Your task to perform on an android device: turn on showing notifications on the lock screen Image 0: 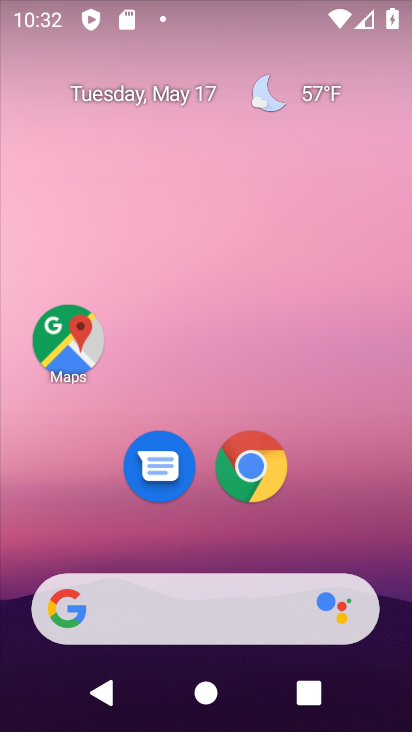
Step 0: drag from (224, 564) to (165, 28)
Your task to perform on an android device: turn on showing notifications on the lock screen Image 1: 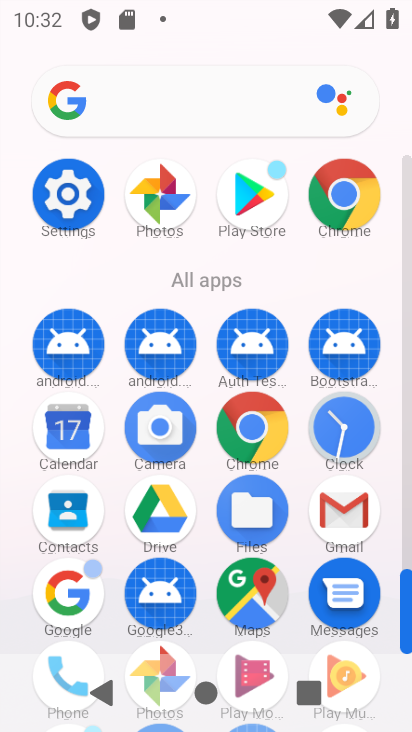
Step 1: click (76, 191)
Your task to perform on an android device: turn on showing notifications on the lock screen Image 2: 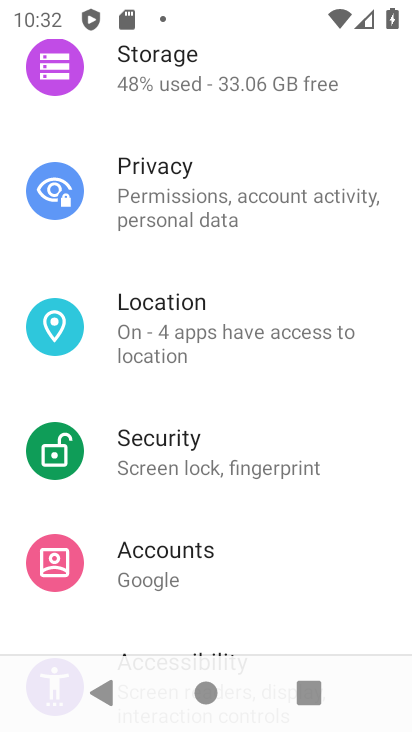
Step 2: click (184, 331)
Your task to perform on an android device: turn on showing notifications on the lock screen Image 3: 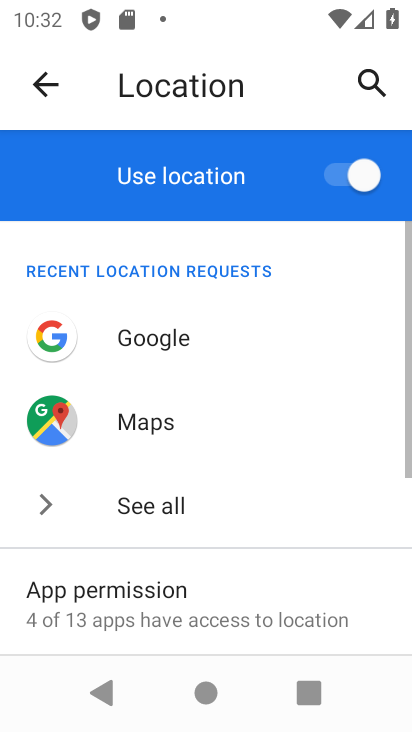
Step 3: click (32, 84)
Your task to perform on an android device: turn on showing notifications on the lock screen Image 4: 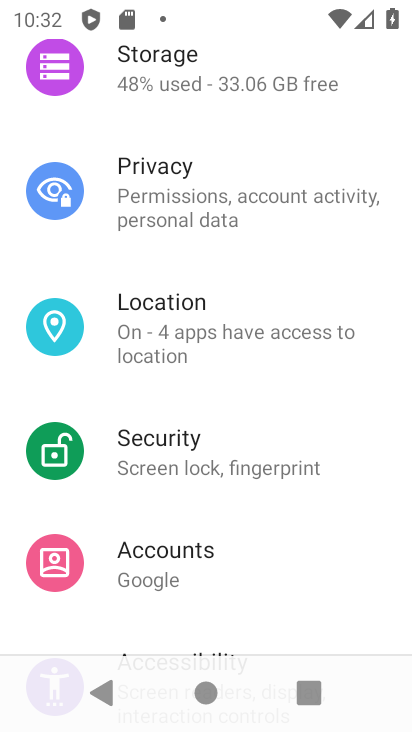
Step 4: drag from (198, 190) to (173, 656)
Your task to perform on an android device: turn on showing notifications on the lock screen Image 5: 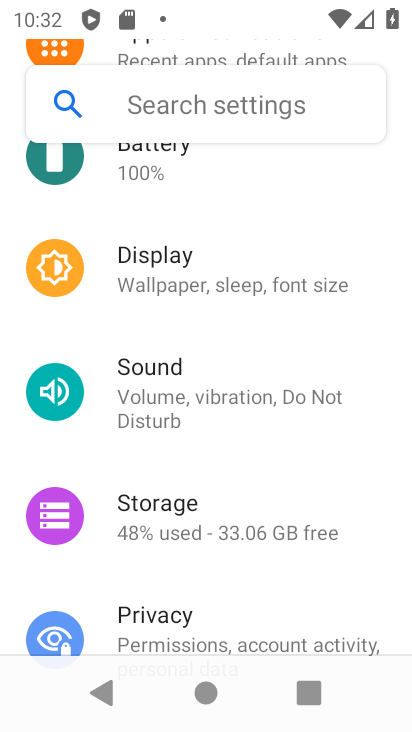
Step 5: drag from (197, 210) to (179, 625)
Your task to perform on an android device: turn on showing notifications on the lock screen Image 6: 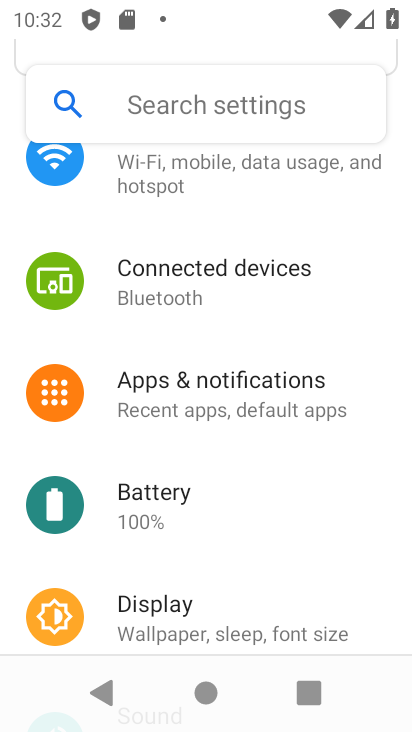
Step 6: click (197, 403)
Your task to perform on an android device: turn on showing notifications on the lock screen Image 7: 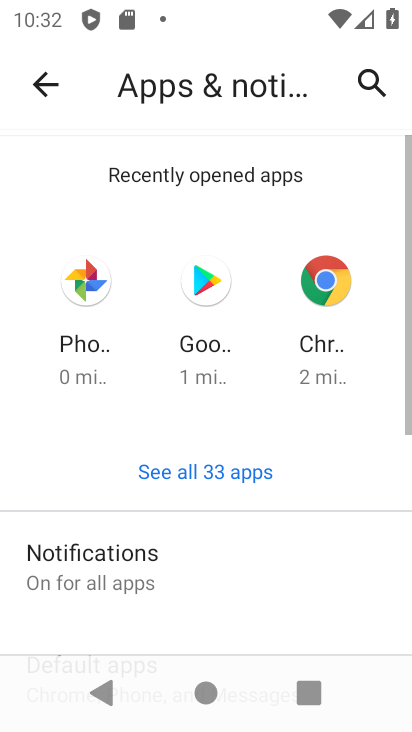
Step 7: click (155, 545)
Your task to perform on an android device: turn on showing notifications on the lock screen Image 8: 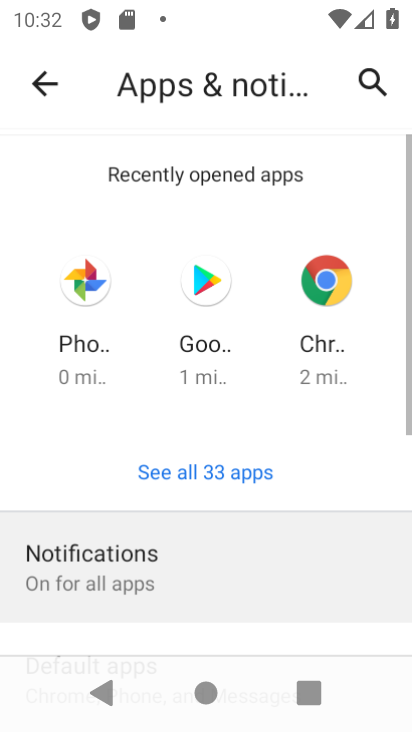
Step 8: drag from (155, 545) to (136, 120)
Your task to perform on an android device: turn on showing notifications on the lock screen Image 9: 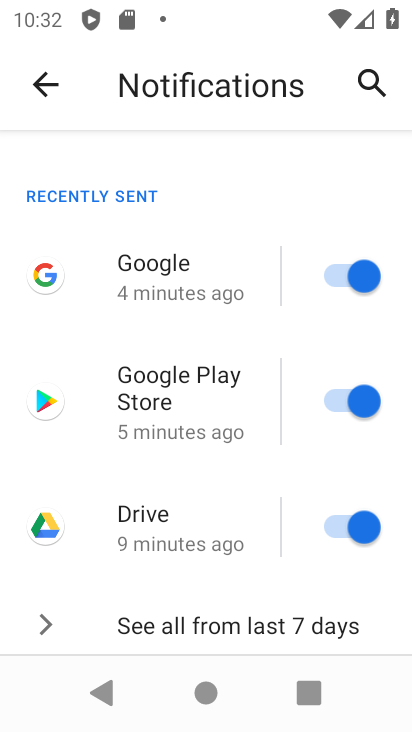
Step 9: drag from (231, 520) to (196, 110)
Your task to perform on an android device: turn on showing notifications on the lock screen Image 10: 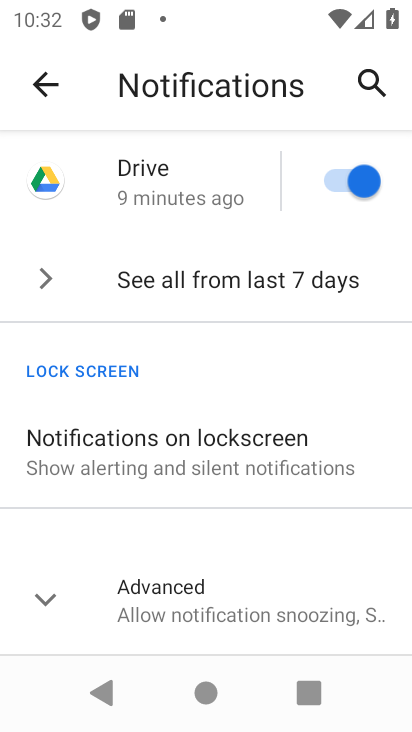
Step 10: click (195, 471)
Your task to perform on an android device: turn on showing notifications on the lock screen Image 11: 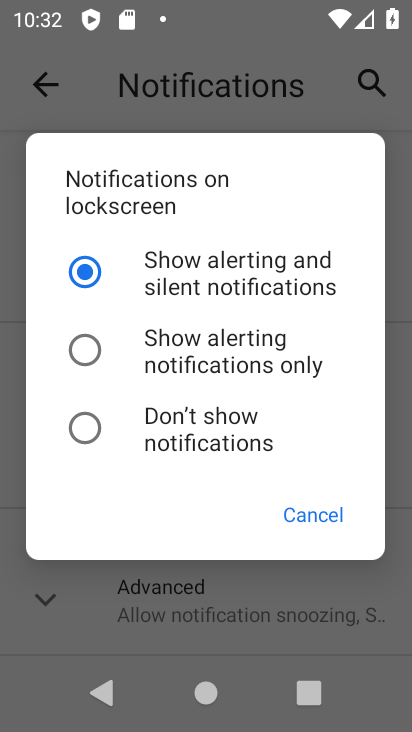
Step 11: click (138, 279)
Your task to perform on an android device: turn on showing notifications on the lock screen Image 12: 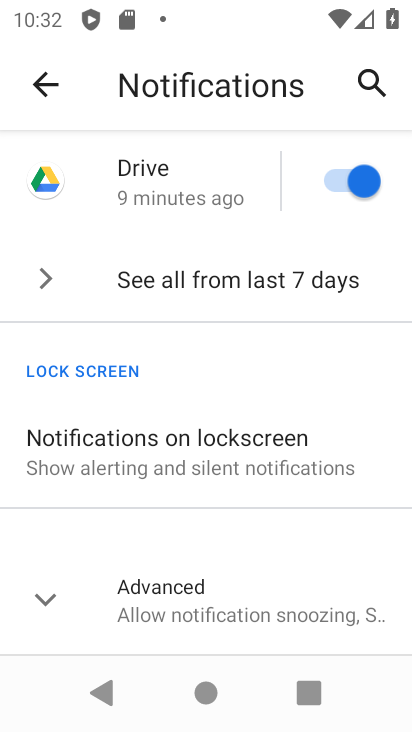
Step 12: task complete